Your task to perform on an android device: Open accessibility settings Image 0: 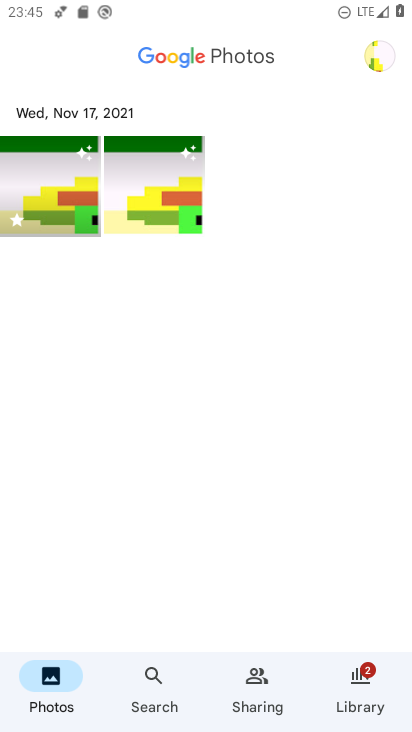
Step 0: press home button
Your task to perform on an android device: Open accessibility settings Image 1: 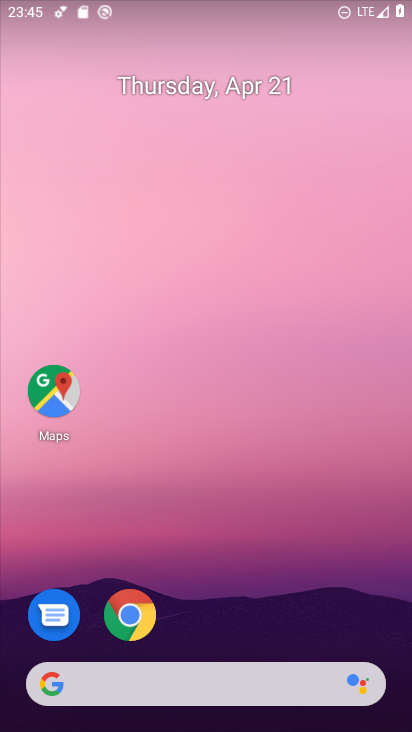
Step 1: drag from (226, 643) to (238, 34)
Your task to perform on an android device: Open accessibility settings Image 2: 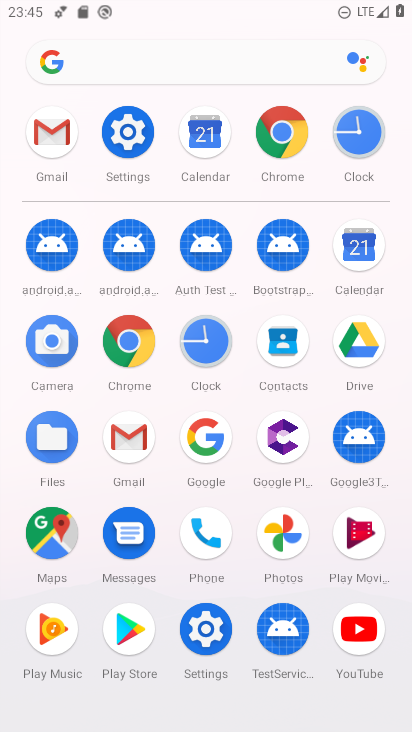
Step 2: click (208, 621)
Your task to perform on an android device: Open accessibility settings Image 3: 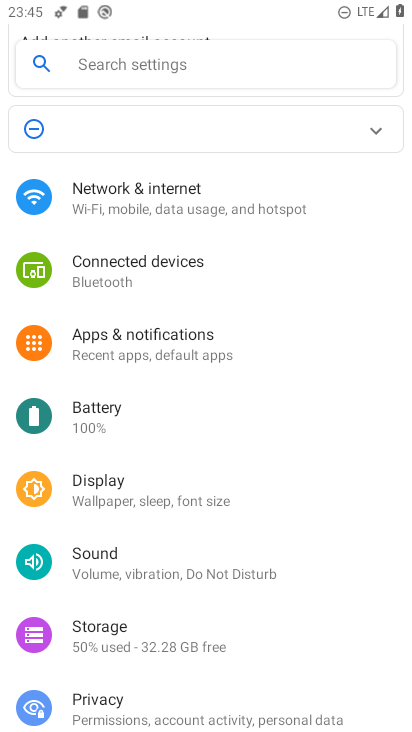
Step 3: drag from (172, 672) to (205, 111)
Your task to perform on an android device: Open accessibility settings Image 4: 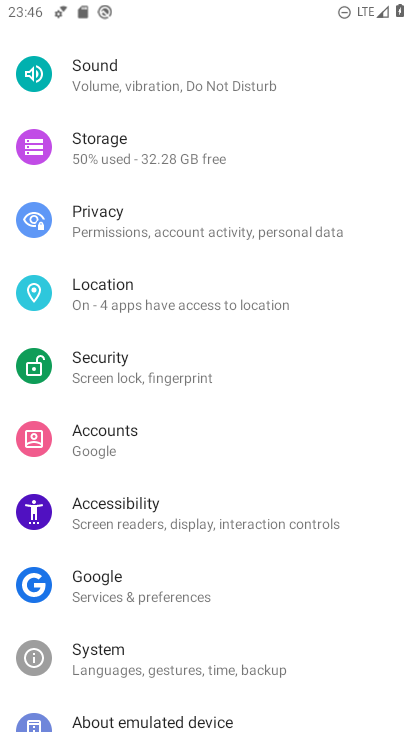
Step 4: click (168, 501)
Your task to perform on an android device: Open accessibility settings Image 5: 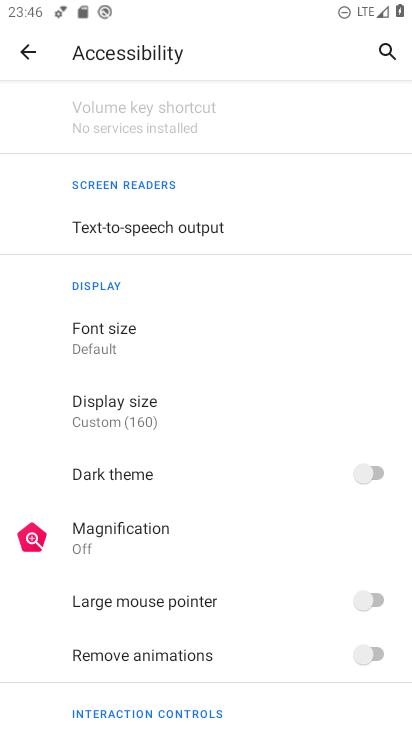
Step 5: task complete